Your task to perform on an android device: Open calendar and show me the first week of next month Image 0: 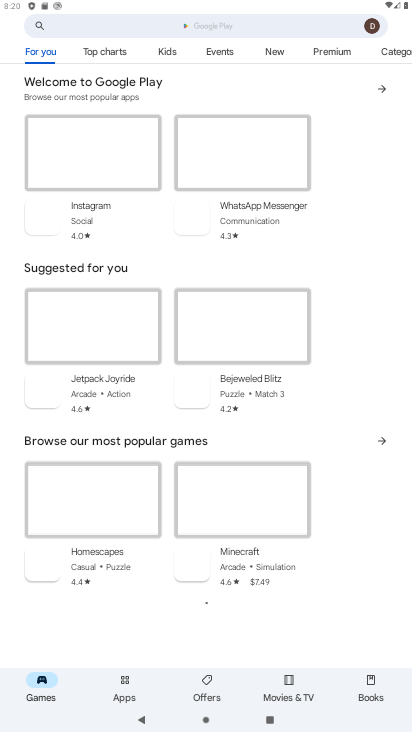
Step 0: press home button
Your task to perform on an android device: Open calendar and show me the first week of next month Image 1: 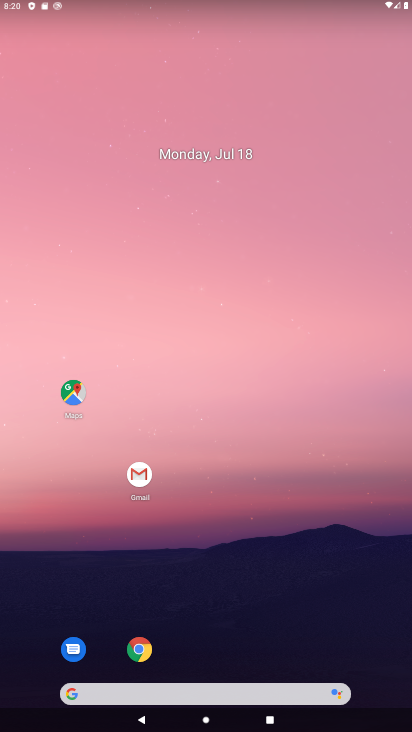
Step 1: drag from (285, 505) to (277, 269)
Your task to perform on an android device: Open calendar and show me the first week of next month Image 2: 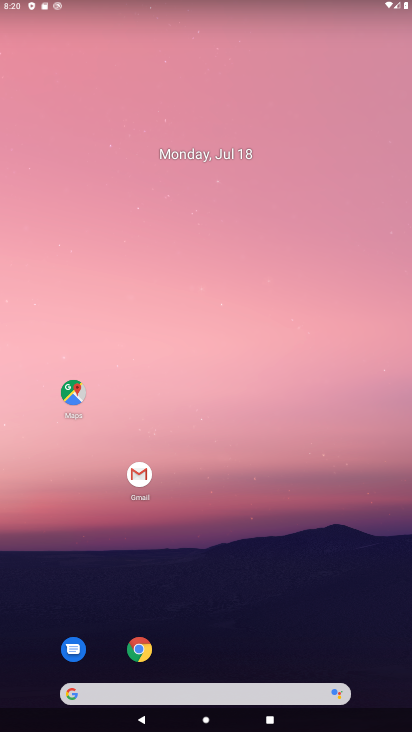
Step 2: click (283, 239)
Your task to perform on an android device: Open calendar and show me the first week of next month Image 3: 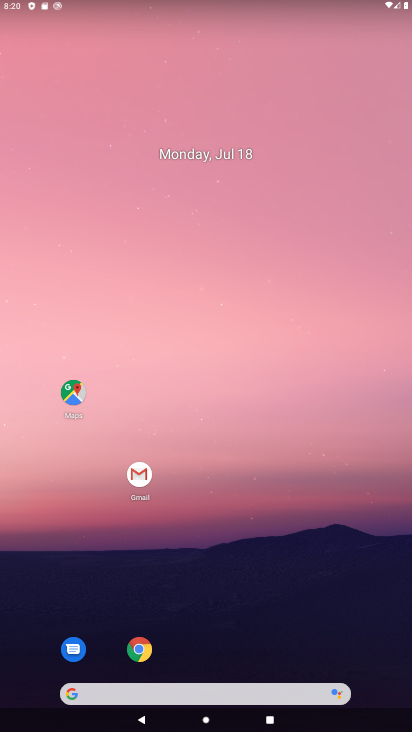
Step 3: drag from (277, 417) to (216, 151)
Your task to perform on an android device: Open calendar and show me the first week of next month Image 4: 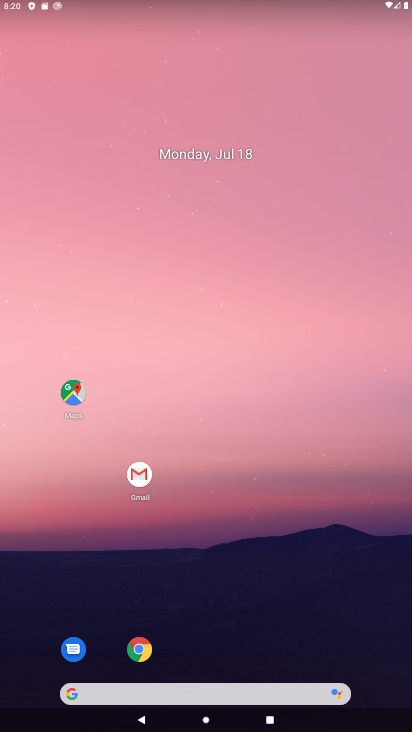
Step 4: drag from (242, 620) to (271, 238)
Your task to perform on an android device: Open calendar and show me the first week of next month Image 5: 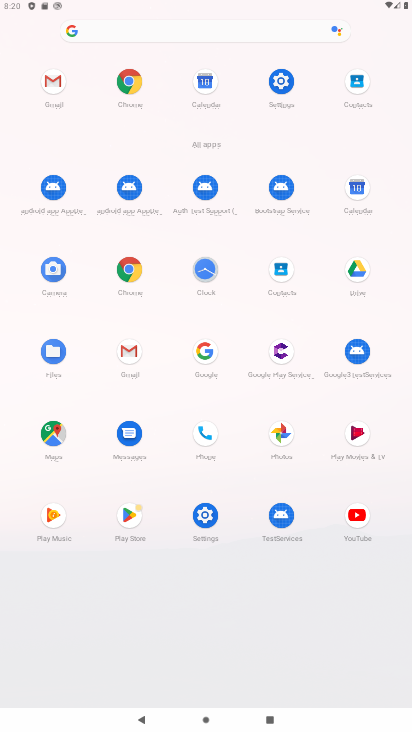
Step 5: click (356, 186)
Your task to perform on an android device: Open calendar and show me the first week of next month Image 6: 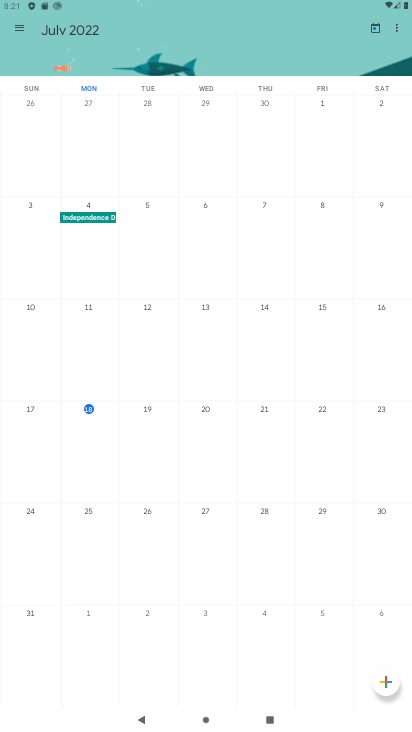
Step 6: task complete